Your task to perform on an android device: Open Google Image 0: 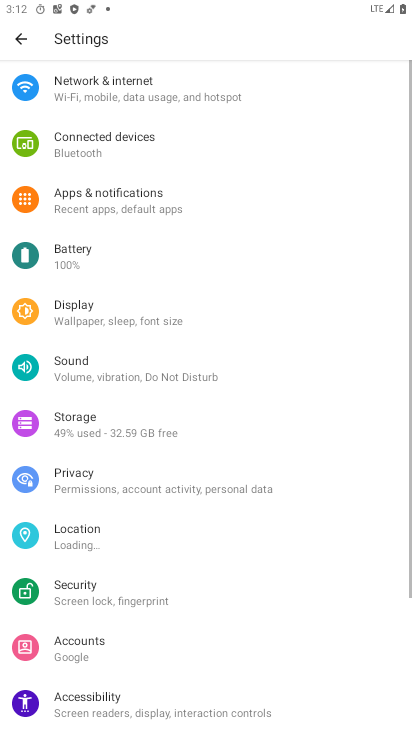
Step 0: press home button
Your task to perform on an android device: Open Google Image 1: 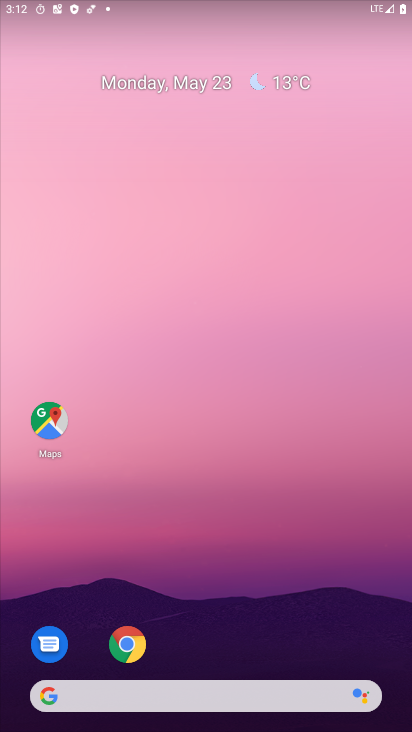
Step 1: click (208, 683)
Your task to perform on an android device: Open Google Image 2: 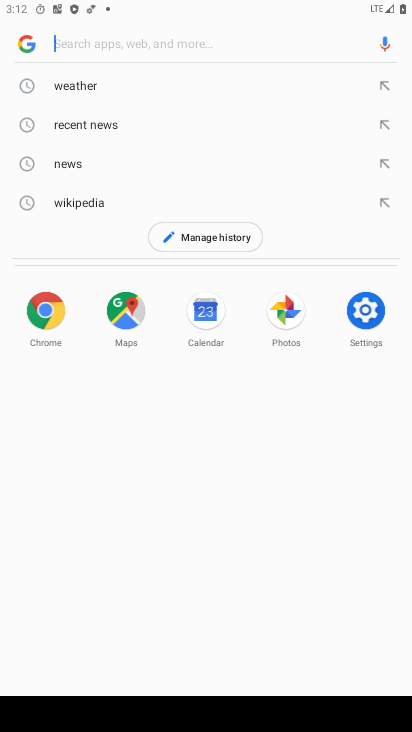
Step 2: task complete